Your task to perform on an android device: Go to Yahoo.com Image 0: 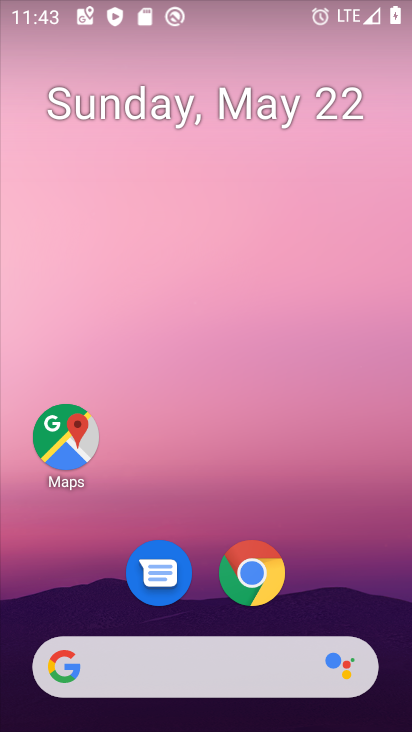
Step 0: click (245, 575)
Your task to perform on an android device: Go to Yahoo.com Image 1: 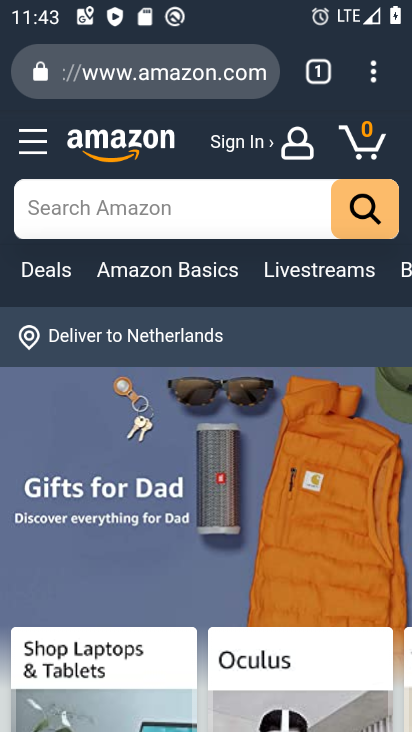
Step 1: click (174, 82)
Your task to perform on an android device: Go to Yahoo.com Image 2: 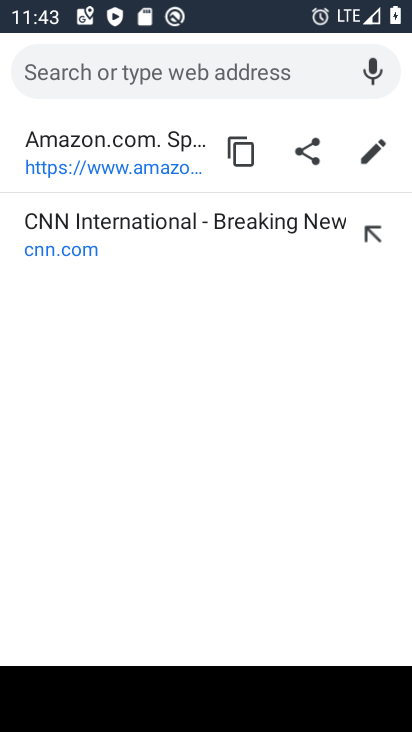
Step 2: type "yahoo.com"
Your task to perform on an android device: Go to Yahoo.com Image 3: 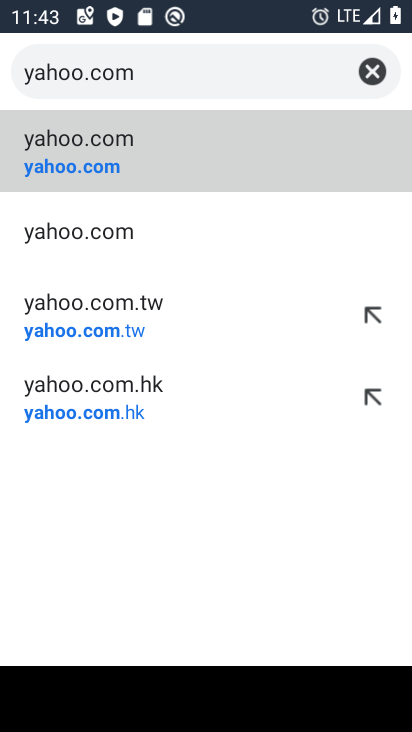
Step 3: click (64, 154)
Your task to perform on an android device: Go to Yahoo.com Image 4: 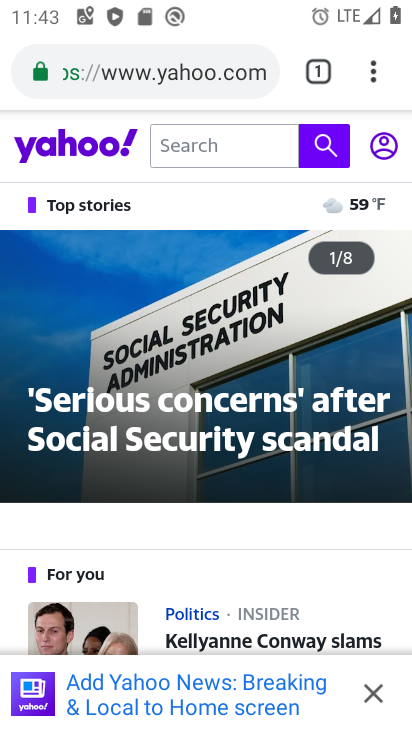
Step 4: task complete